Your task to perform on an android device: Open Google Maps and go to "Timeline" Image 0: 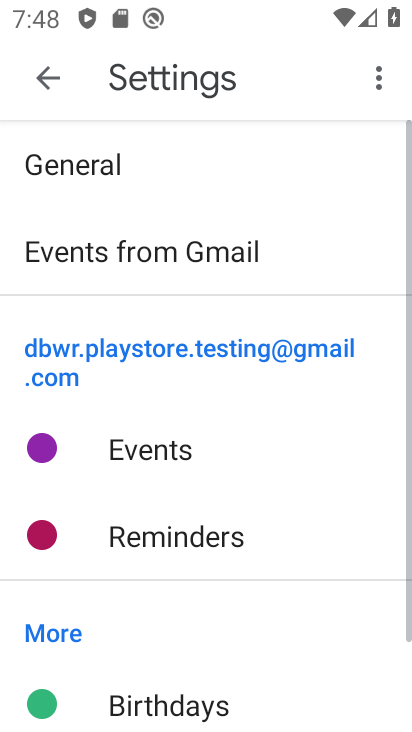
Step 0: press home button
Your task to perform on an android device: Open Google Maps and go to "Timeline" Image 1: 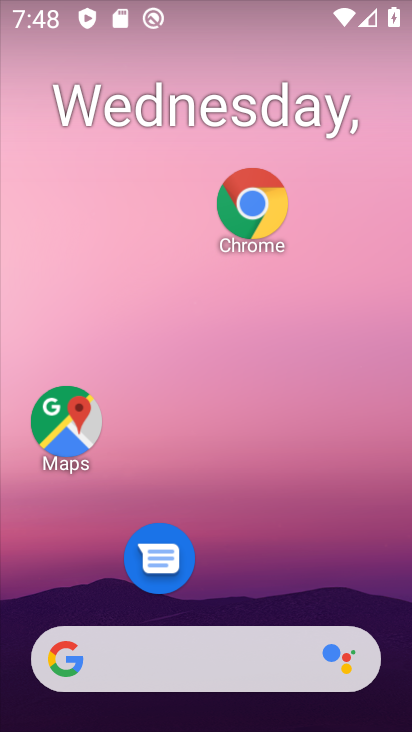
Step 1: drag from (221, 582) to (241, 109)
Your task to perform on an android device: Open Google Maps and go to "Timeline" Image 2: 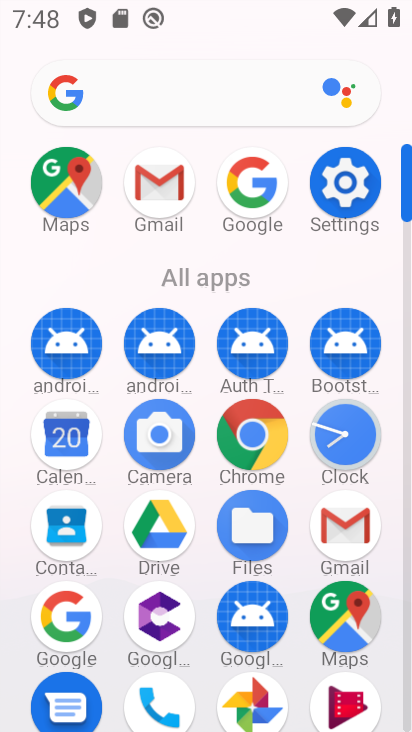
Step 2: click (341, 608)
Your task to perform on an android device: Open Google Maps and go to "Timeline" Image 3: 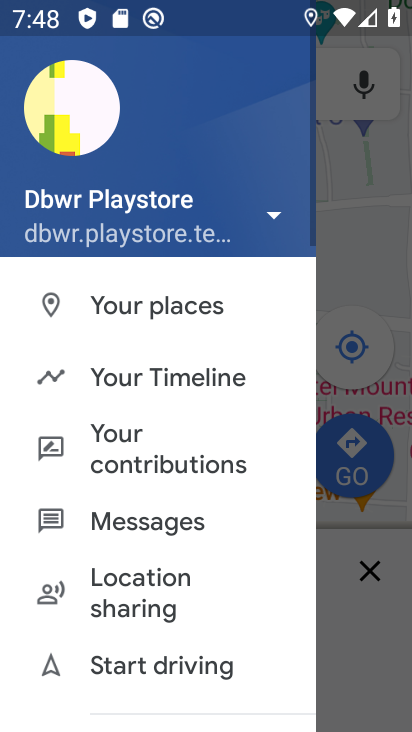
Step 3: click (142, 377)
Your task to perform on an android device: Open Google Maps and go to "Timeline" Image 4: 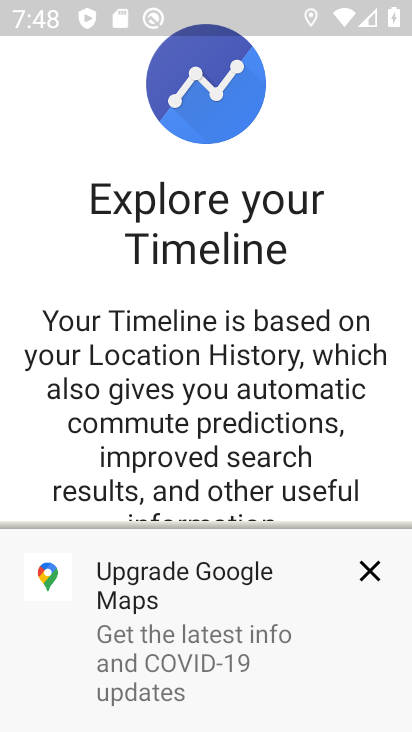
Step 4: click (362, 569)
Your task to perform on an android device: Open Google Maps and go to "Timeline" Image 5: 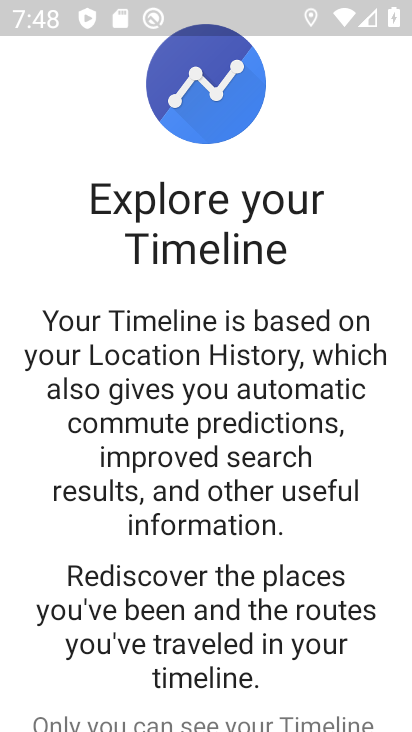
Step 5: drag from (274, 680) to (295, 244)
Your task to perform on an android device: Open Google Maps and go to "Timeline" Image 6: 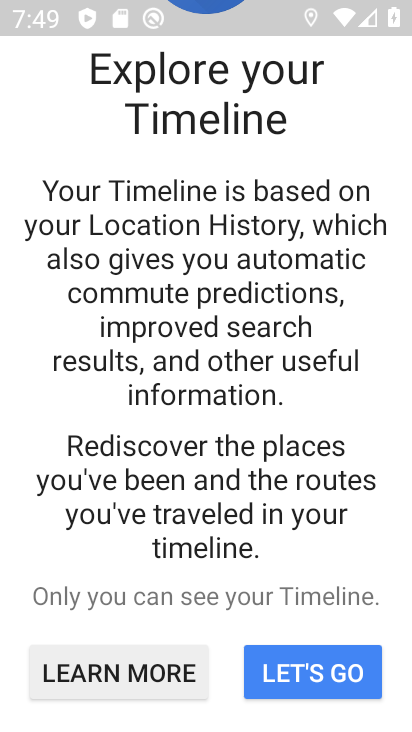
Step 6: click (324, 672)
Your task to perform on an android device: Open Google Maps and go to "Timeline" Image 7: 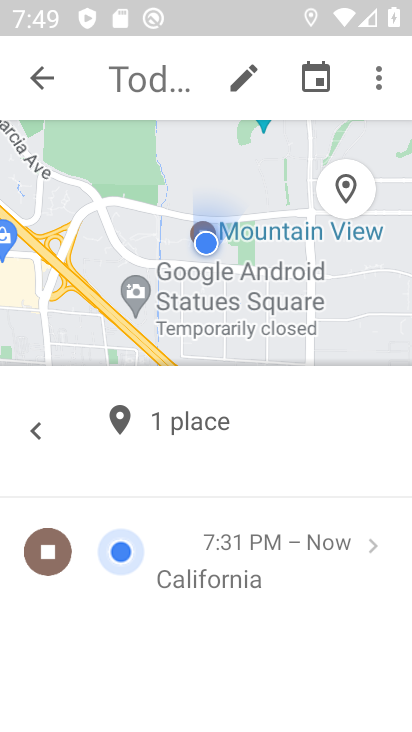
Step 7: task complete